Your task to perform on an android device: Open Youtube and go to "Your channel" Image 0: 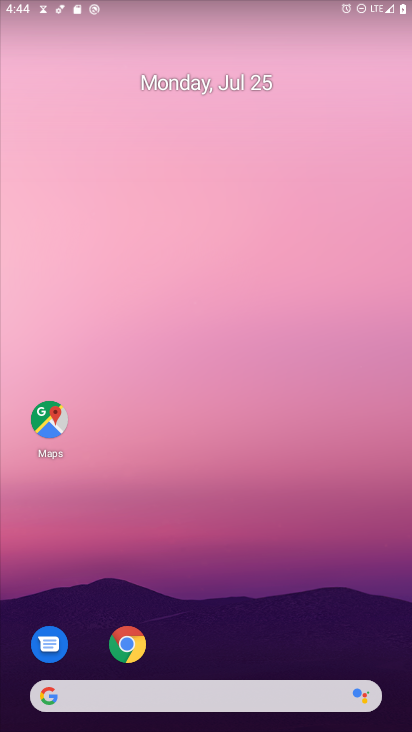
Step 0: press home button
Your task to perform on an android device: Open Youtube and go to "Your channel" Image 1: 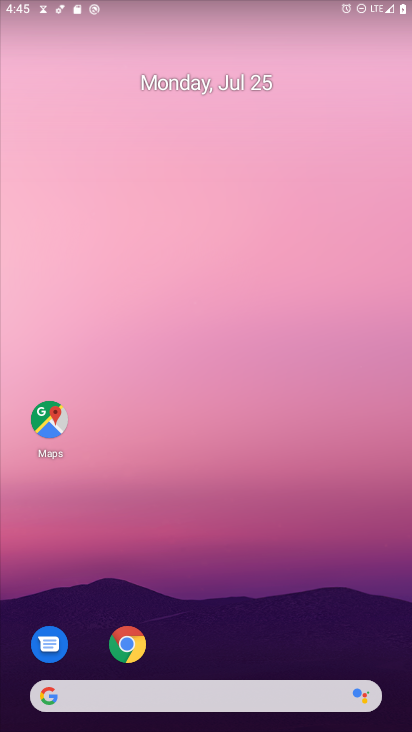
Step 1: press home button
Your task to perform on an android device: Open Youtube and go to "Your channel" Image 2: 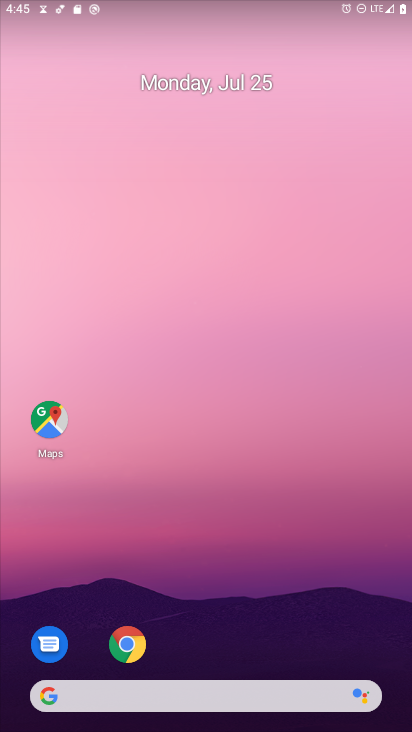
Step 2: drag from (294, 591) to (292, 92)
Your task to perform on an android device: Open Youtube and go to "Your channel" Image 3: 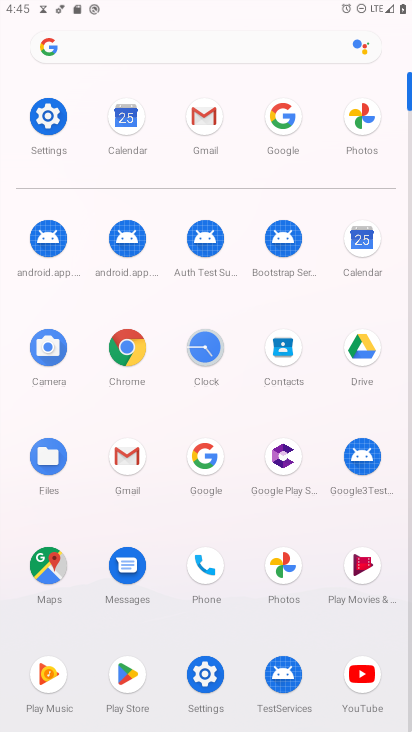
Step 3: click (357, 666)
Your task to perform on an android device: Open Youtube and go to "Your channel" Image 4: 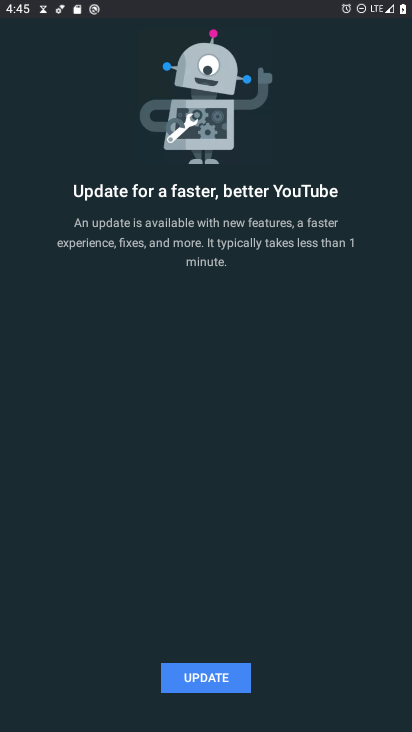
Step 4: click (223, 678)
Your task to perform on an android device: Open Youtube and go to "Your channel" Image 5: 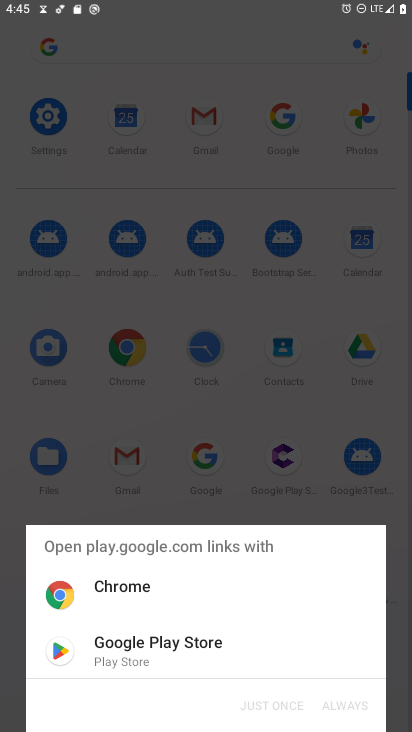
Step 5: click (110, 656)
Your task to perform on an android device: Open Youtube and go to "Your channel" Image 6: 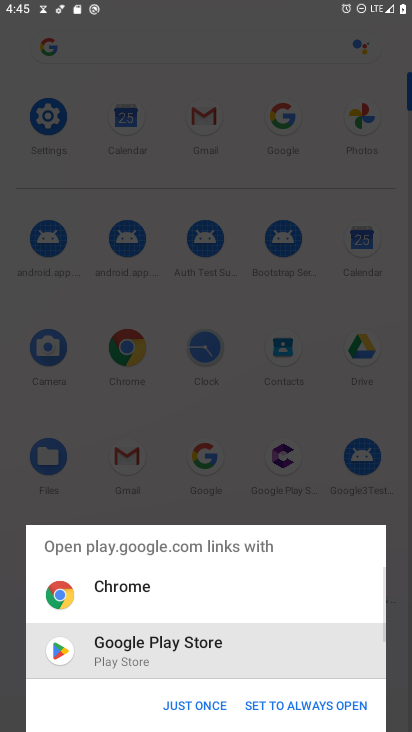
Step 6: click (192, 706)
Your task to perform on an android device: Open Youtube and go to "Your channel" Image 7: 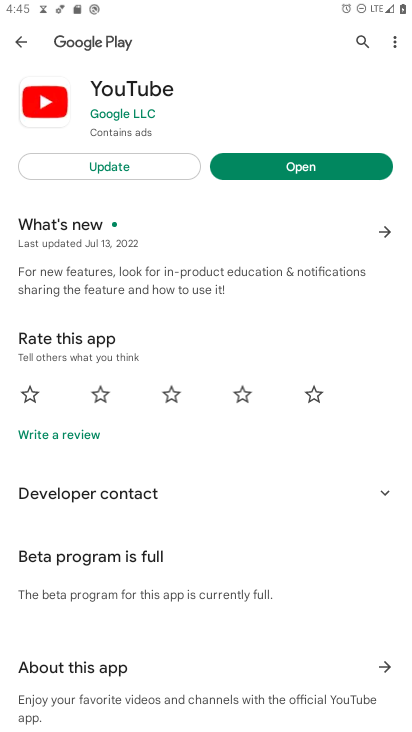
Step 7: click (88, 172)
Your task to perform on an android device: Open Youtube and go to "Your channel" Image 8: 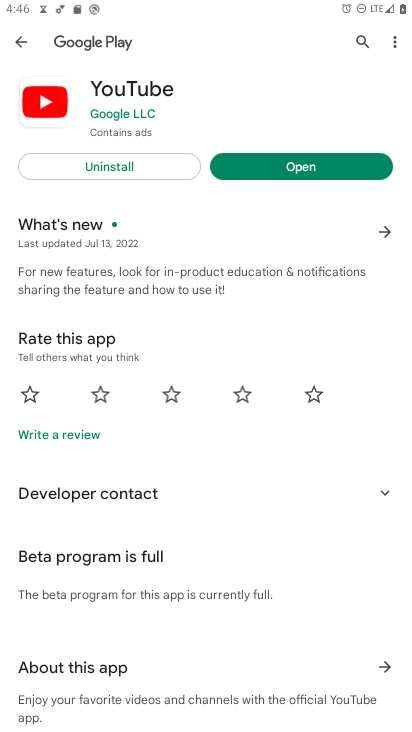
Step 8: click (292, 168)
Your task to perform on an android device: Open Youtube and go to "Your channel" Image 9: 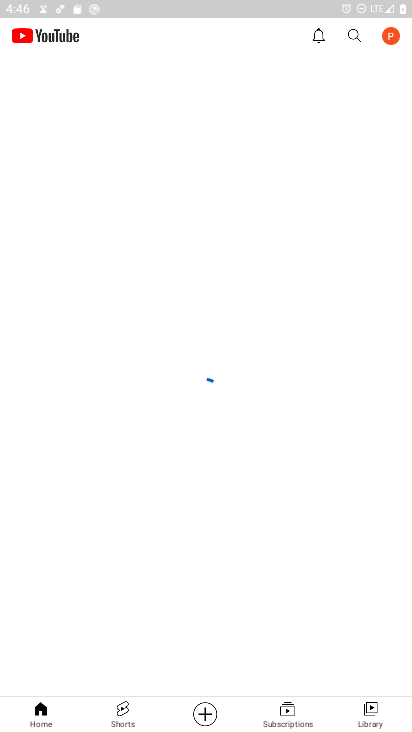
Step 9: click (388, 38)
Your task to perform on an android device: Open Youtube and go to "Your channel" Image 10: 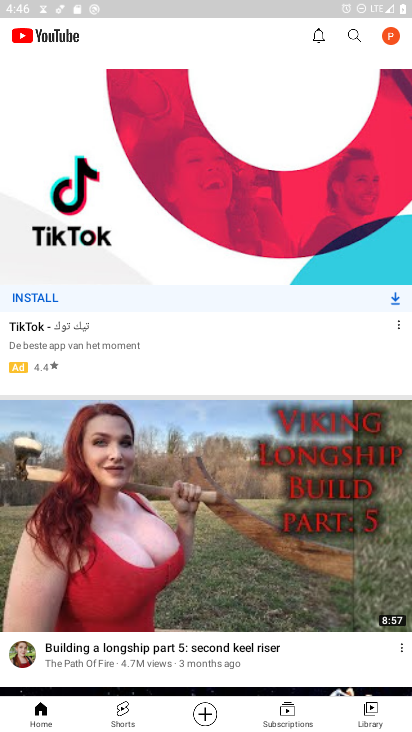
Step 10: click (388, 38)
Your task to perform on an android device: Open Youtube and go to "Your channel" Image 11: 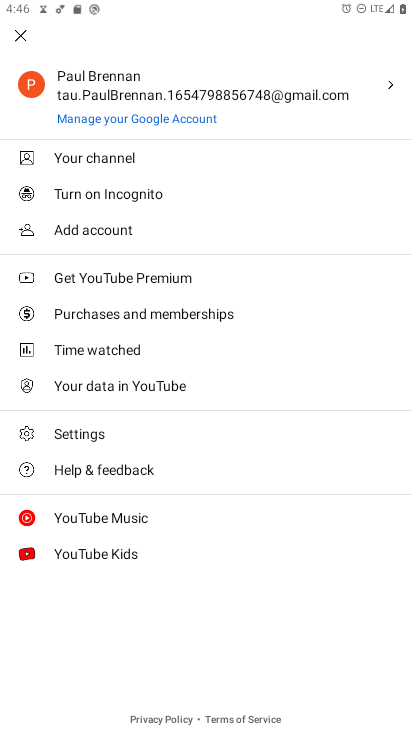
Step 11: click (74, 152)
Your task to perform on an android device: Open Youtube and go to "Your channel" Image 12: 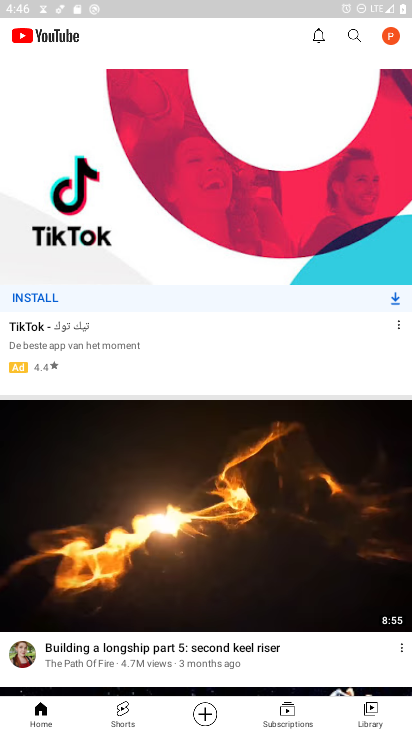
Step 12: task complete